Your task to perform on an android device: change the clock display to analog Image 0: 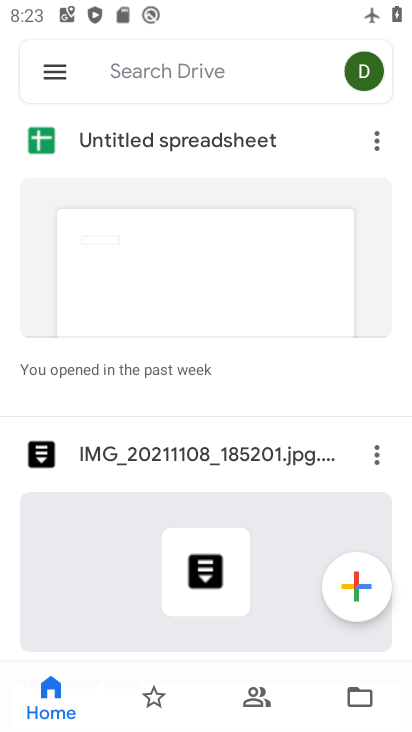
Step 0: press home button
Your task to perform on an android device: change the clock display to analog Image 1: 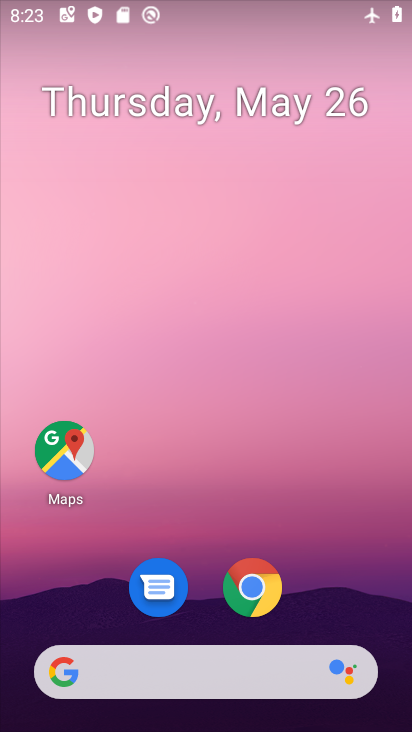
Step 1: drag from (218, 618) to (201, 209)
Your task to perform on an android device: change the clock display to analog Image 2: 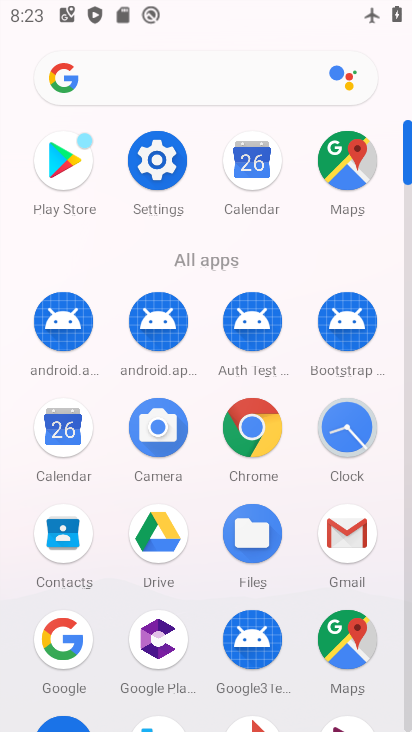
Step 2: click (331, 414)
Your task to perform on an android device: change the clock display to analog Image 3: 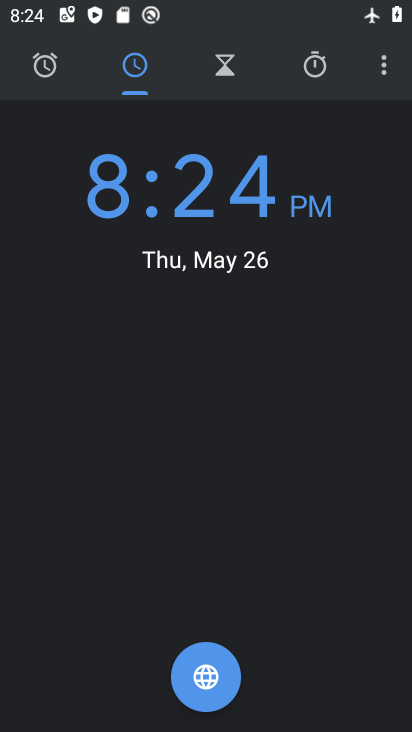
Step 3: click (378, 61)
Your task to perform on an android device: change the clock display to analog Image 4: 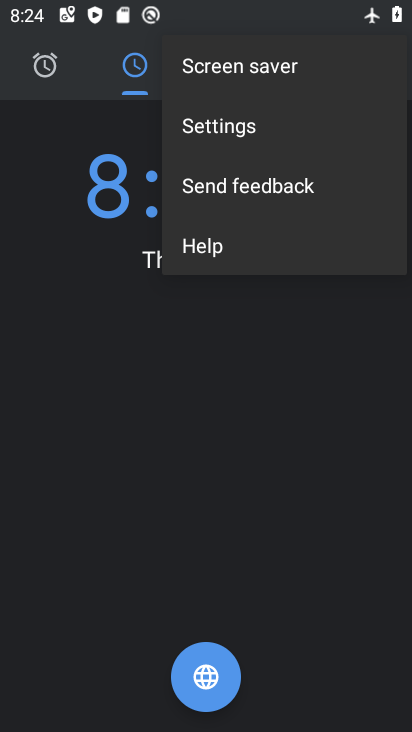
Step 4: click (308, 109)
Your task to perform on an android device: change the clock display to analog Image 5: 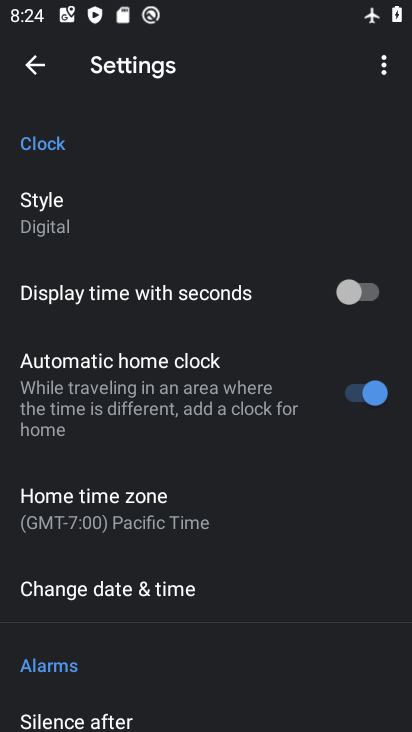
Step 5: click (143, 195)
Your task to perform on an android device: change the clock display to analog Image 6: 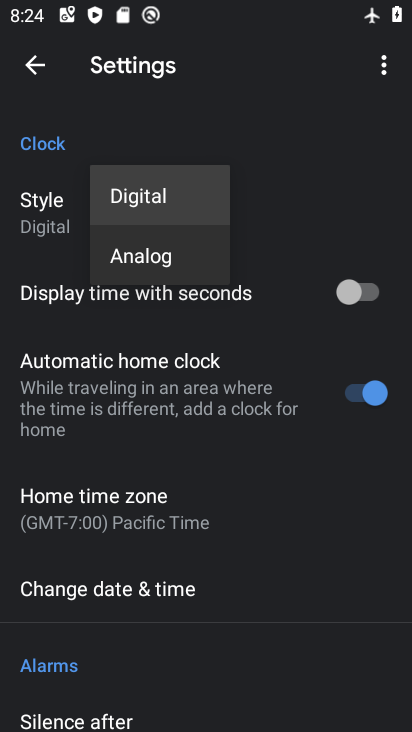
Step 6: click (171, 249)
Your task to perform on an android device: change the clock display to analog Image 7: 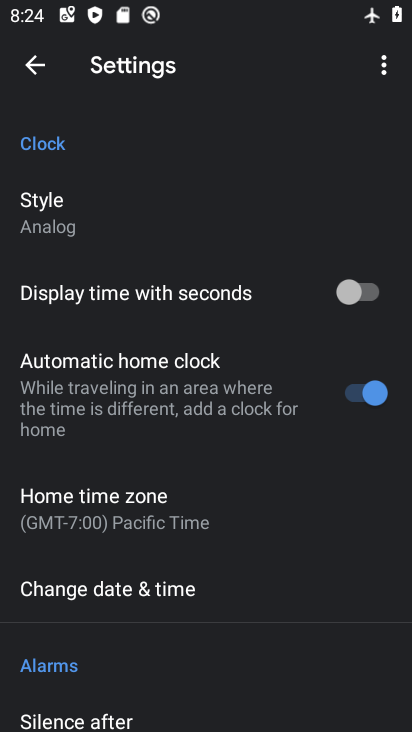
Step 7: task complete